Your task to perform on an android device: Check the weather Image 0: 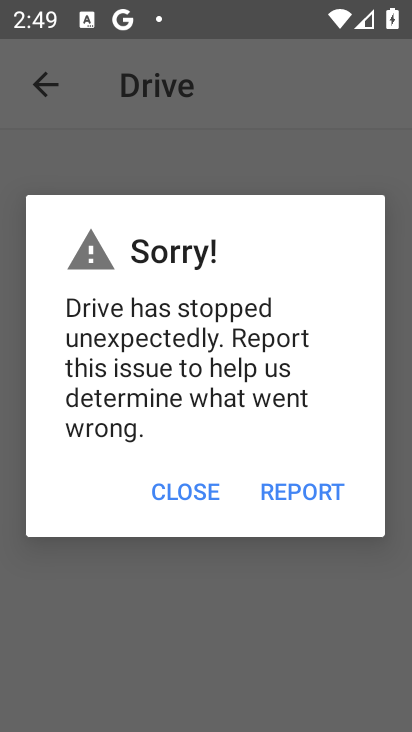
Step 0: press home button
Your task to perform on an android device: Check the weather Image 1: 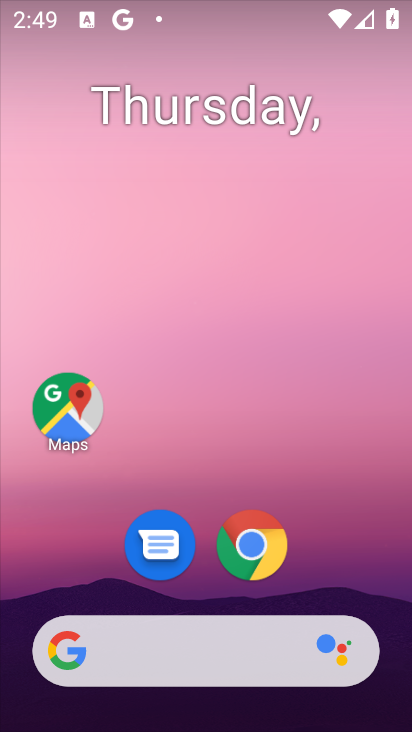
Step 1: click (174, 652)
Your task to perform on an android device: Check the weather Image 2: 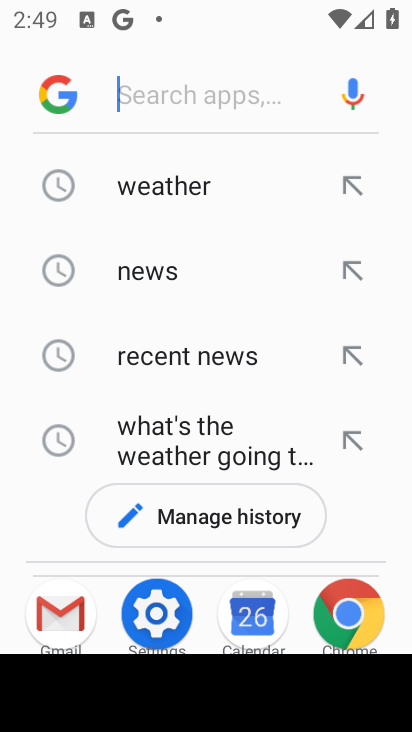
Step 2: click (227, 182)
Your task to perform on an android device: Check the weather Image 3: 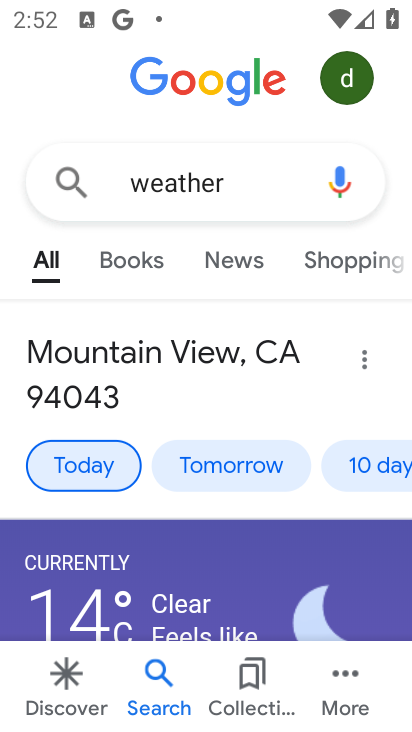
Step 3: task complete